Your task to perform on an android device: How do I get to the nearest Starbucks? Image 0: 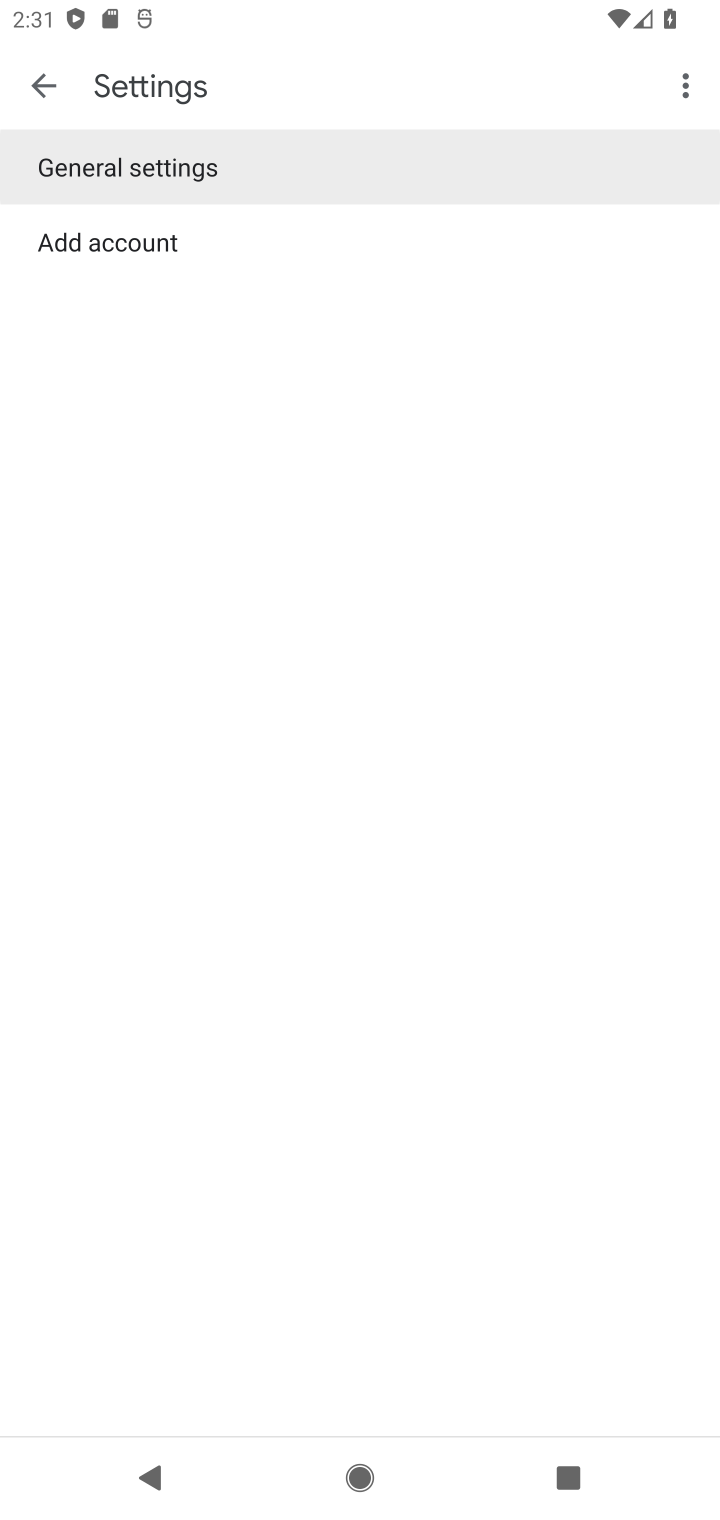
Step 0: press home button
Your task to perform on an android device: How do I get to the nearest Starbucks? Image 1: 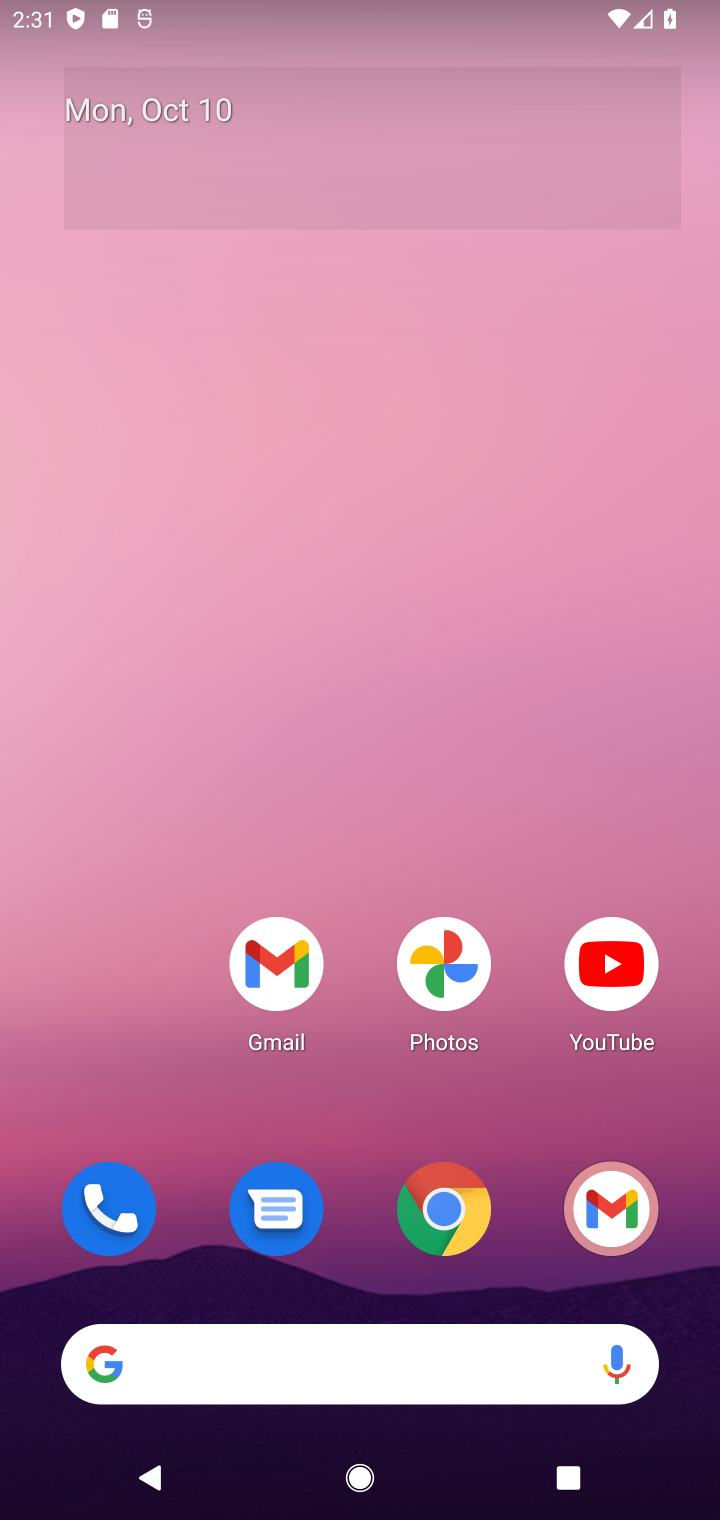
Step 1: click (474, 1210)
Your task to perform on an android device: How do I get to the nearest Starbucks? Image 2: 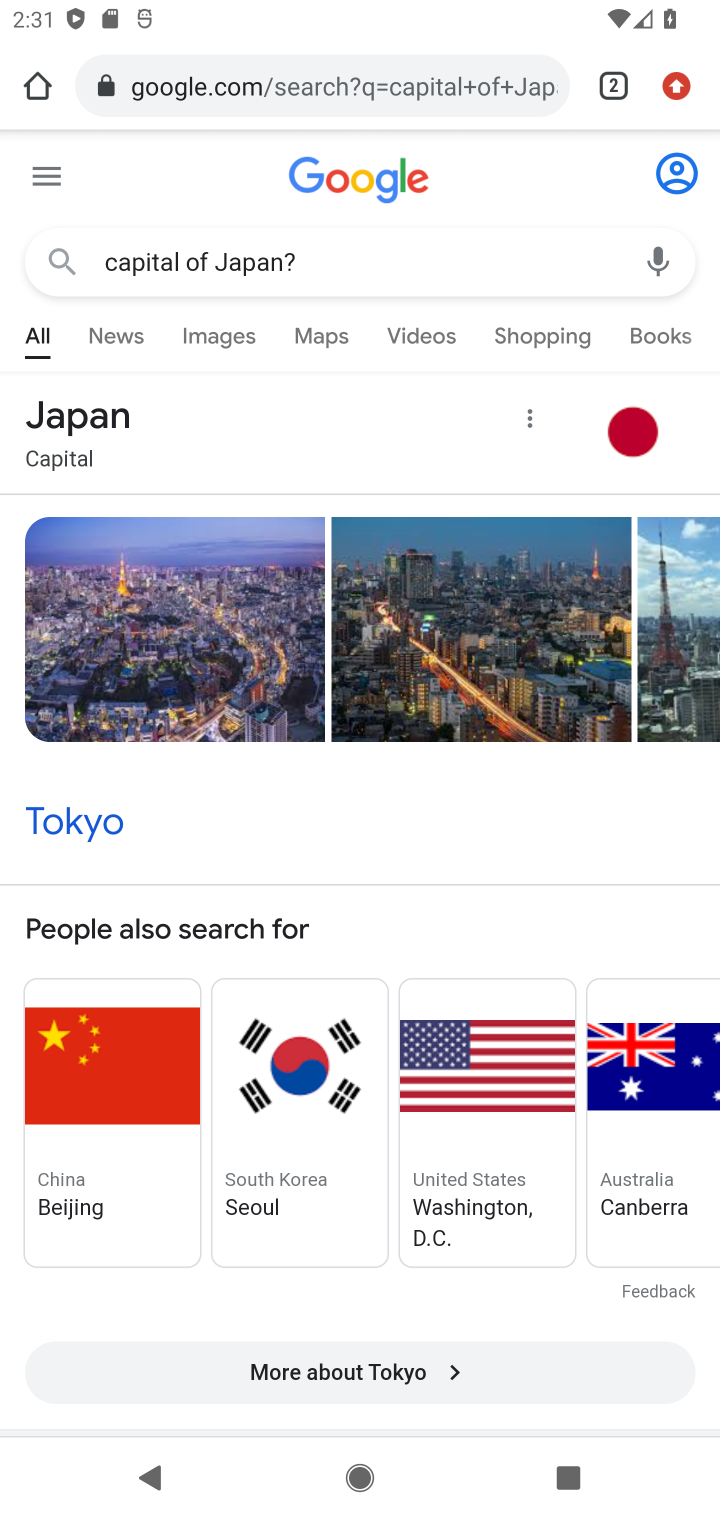
Step 2: click (454, 271)
Your task to perform on an android device: How do I get to the nearest Starbucks? Image 3: 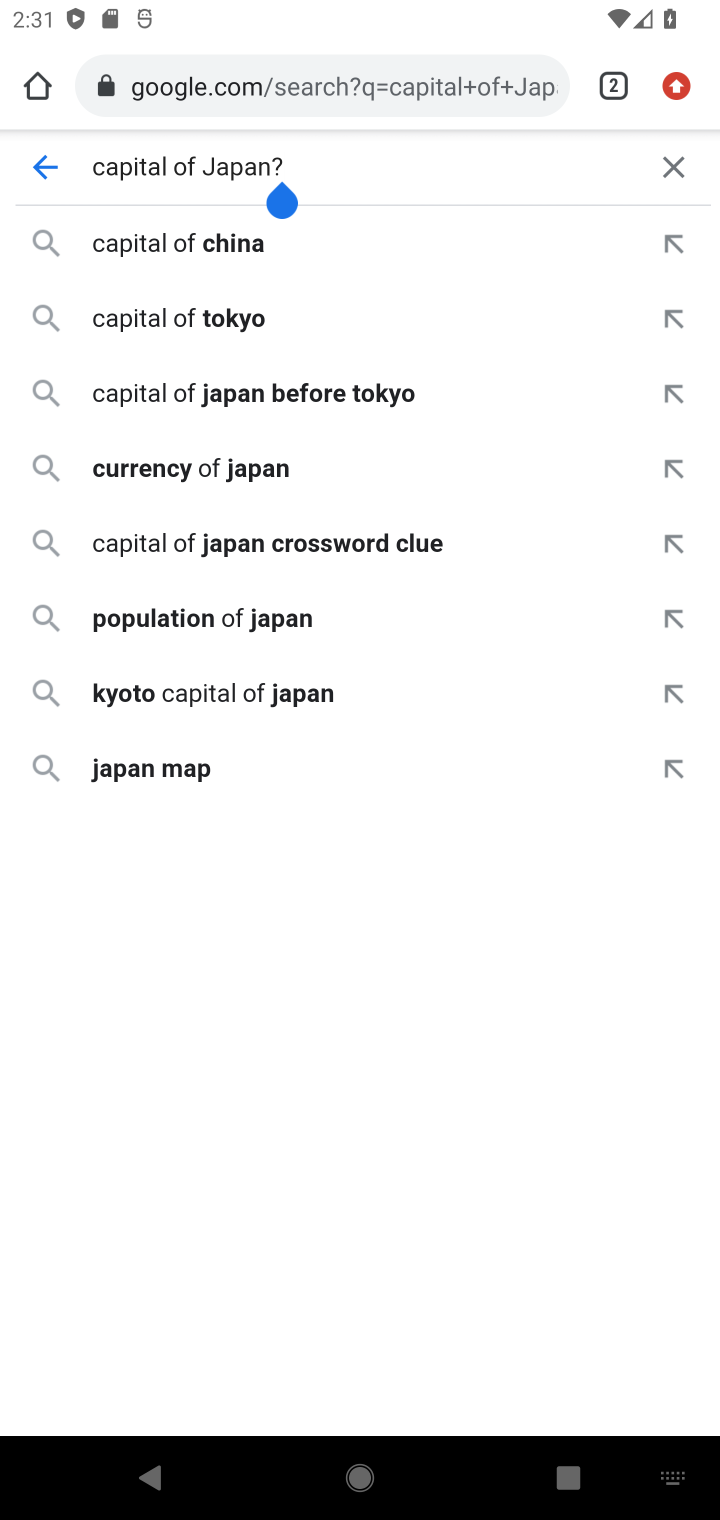
Step 3: click (681, 155)
Your task to perform on an android device: How do I get to the nearest Starbucks? Image 4: 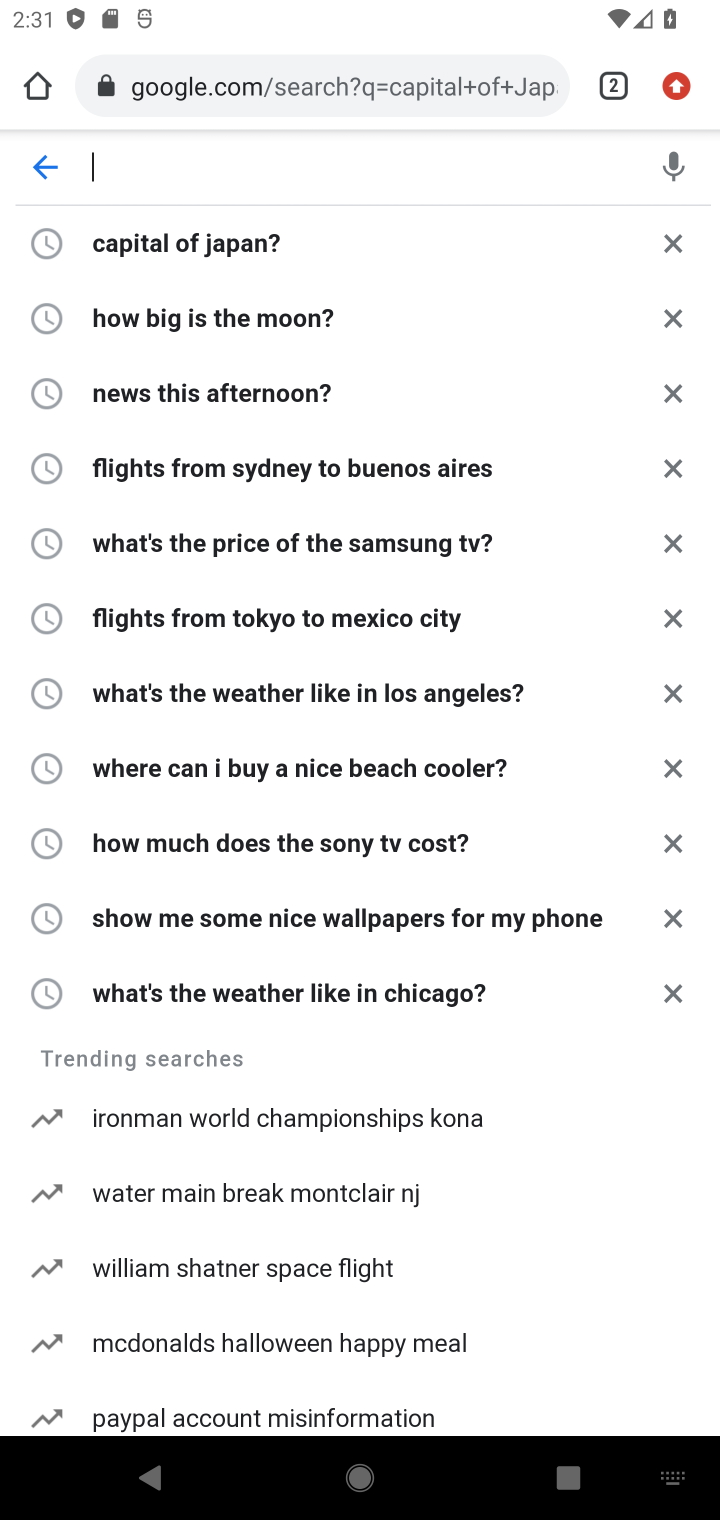
Step 4: click (423, 171)
Your task to perform on an android device: How do I get to the nearest Starbucks? Image 5: 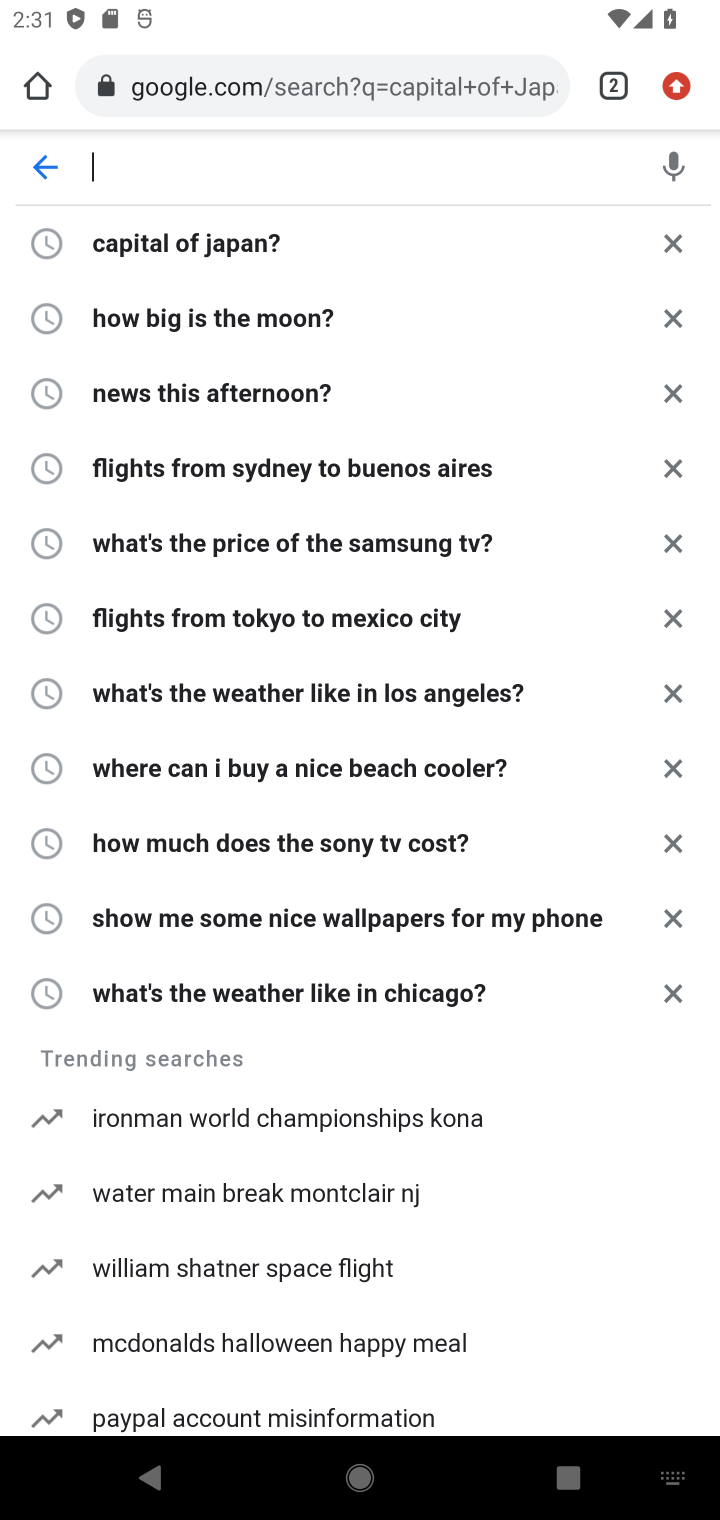
Step 5: type "How do I get to the nearest Starbucks?"
Your task to perform on an android device: How do I get to the nearest Starbucks? Image 6: 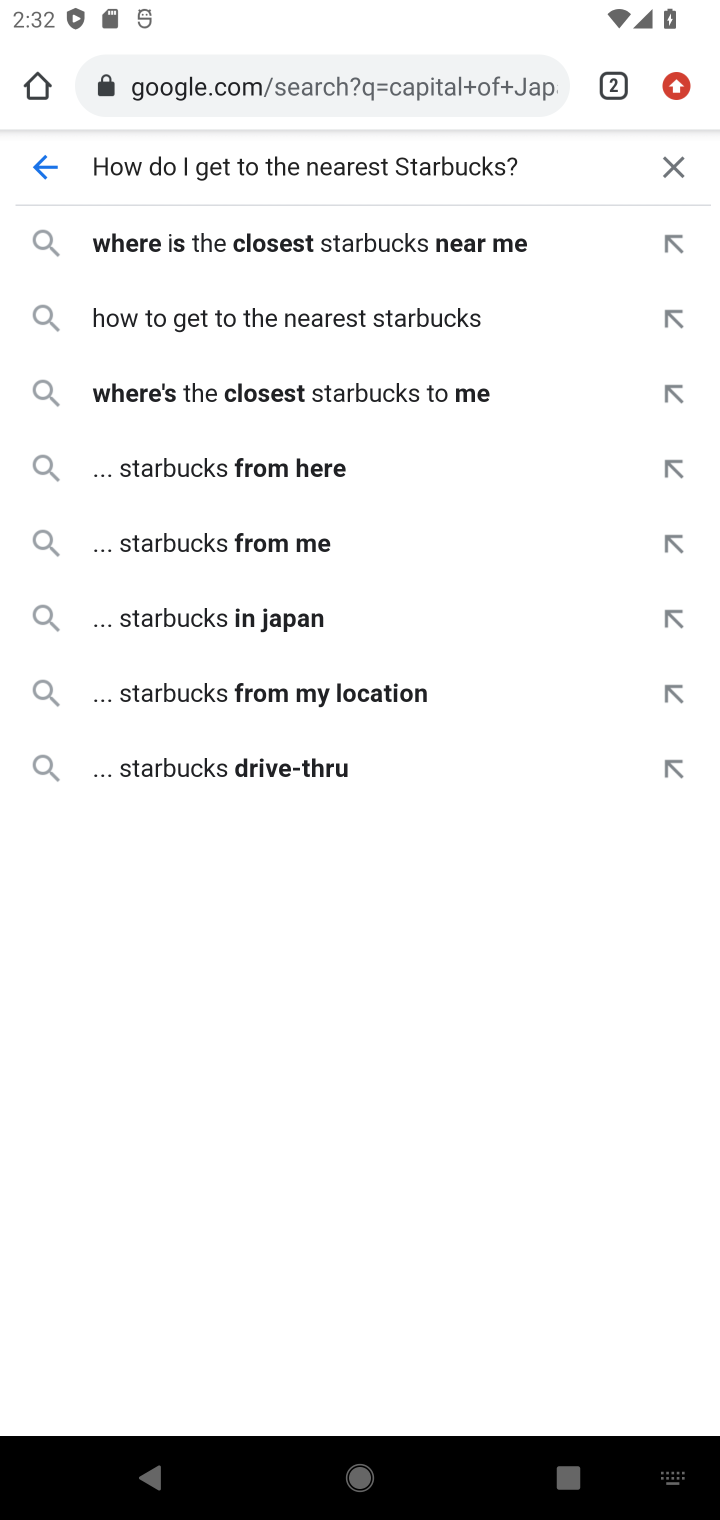
Step 6: press enter
Your task to perform on an android device: How do I get to the nearest Starbucks? Image 7: 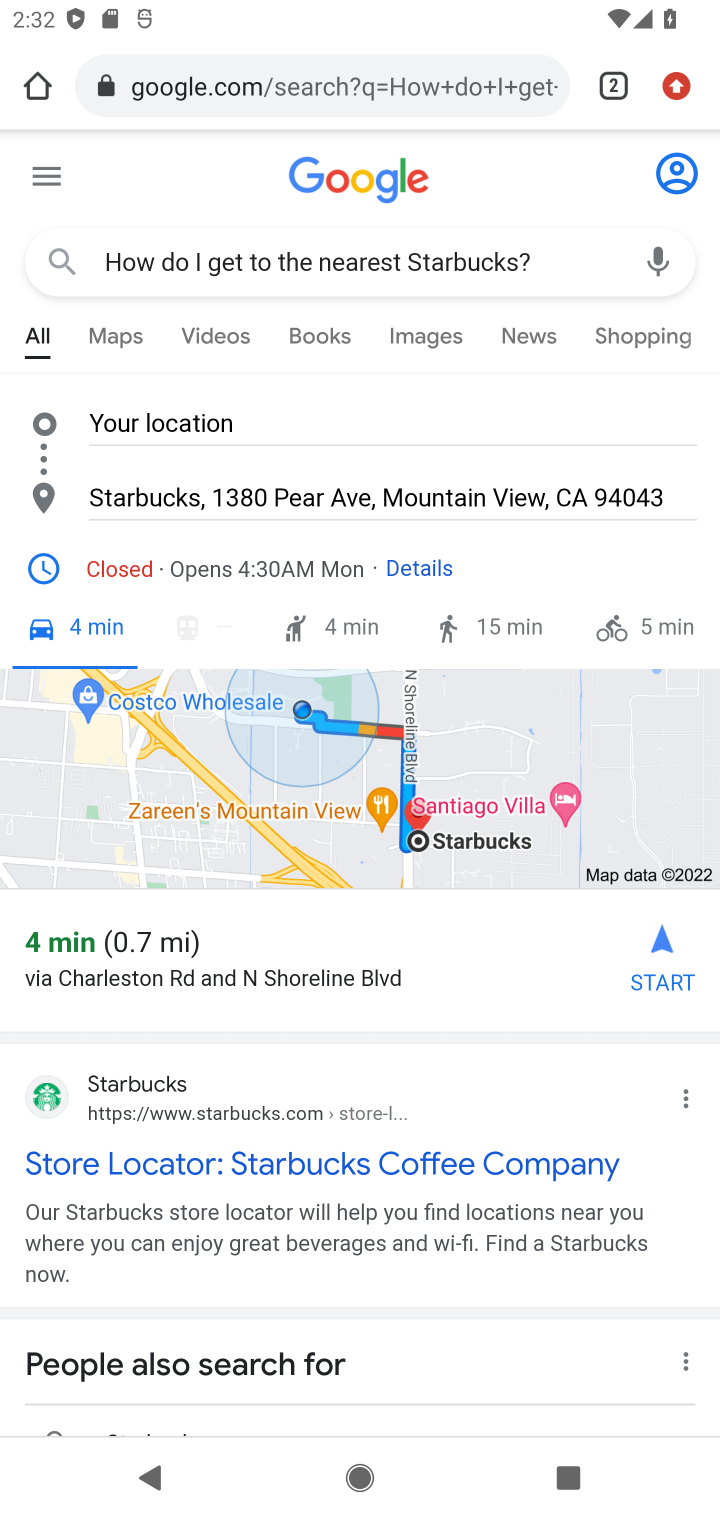
Step 7: task complete